Your task to perform on an android device: Open calendar and show me the second week of next month Image 0: 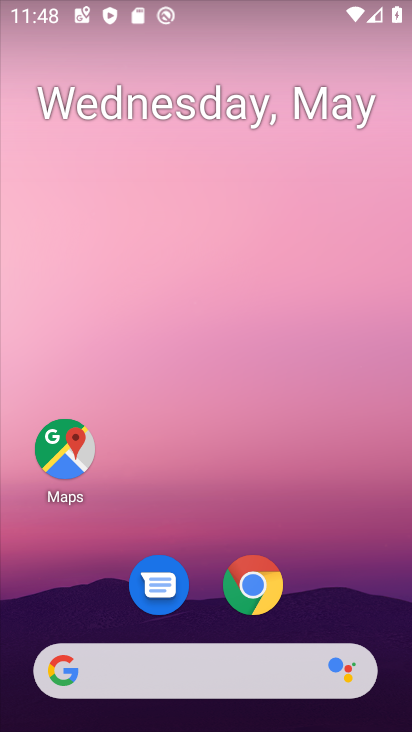
Step 0: drag from (265, 519) to (304, 58)
Your task to perform on an android device: Open calendar and show me the second week of next month Image 1: 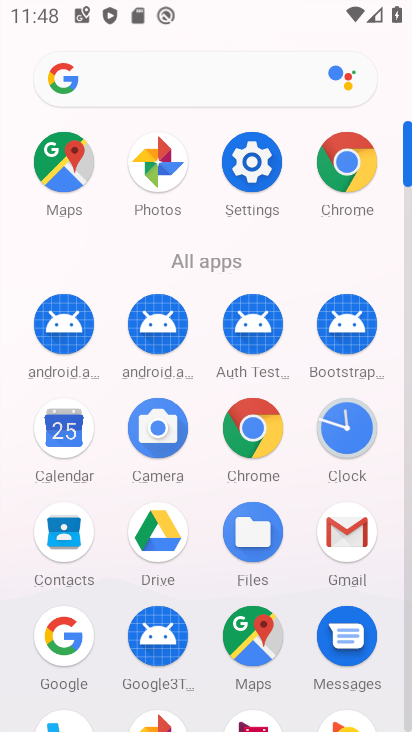
Step 1: click (64, 430)
Your task to perform on an android device: Open calendar and show me the second week of next month Image 2: 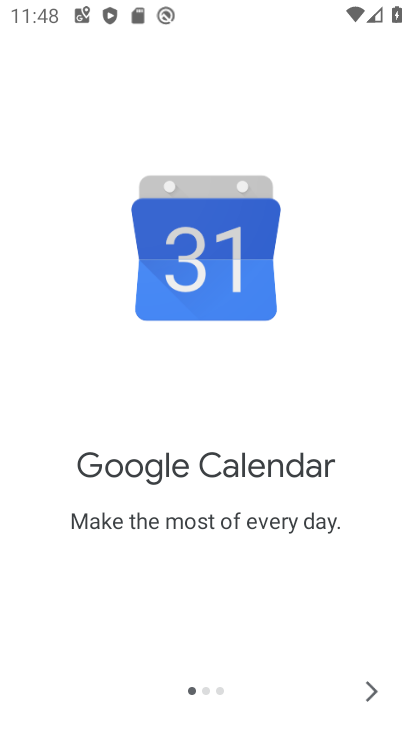
Step 2: click (375, 686)
Your task to perform on an android device: Open calendar and show me the second week of next month Image 3: 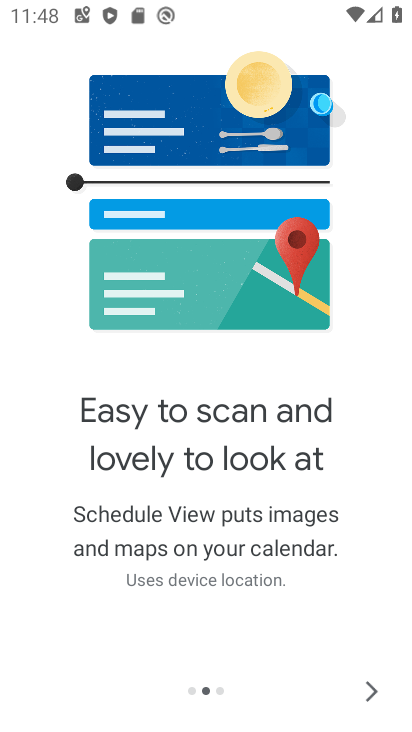
Step 3: click (375, 686)
Your task to perform on an android device: Open calendar and show me the second week of next month Image 4: 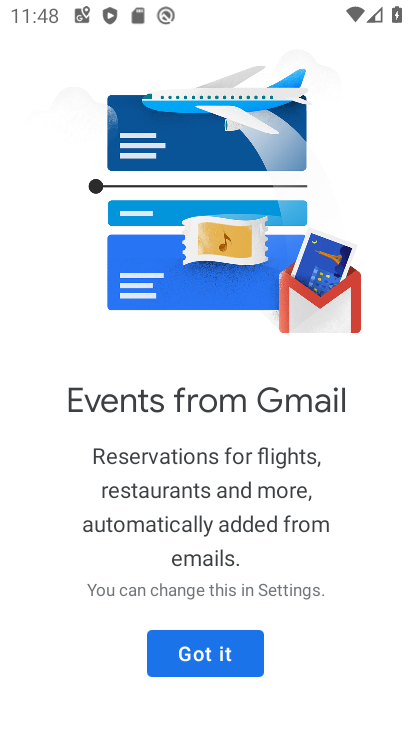
Step 4: click (250, 658)
Your task to perform on an android device: Open calendar and show me the second week of next month Image 5: 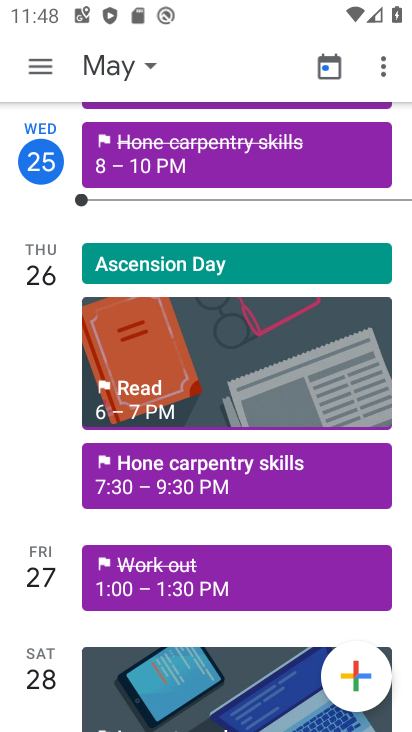
Step 5: click (39, 67)
Your task to perform on an android device: Open calendar and show me the second week of next month Image 6: 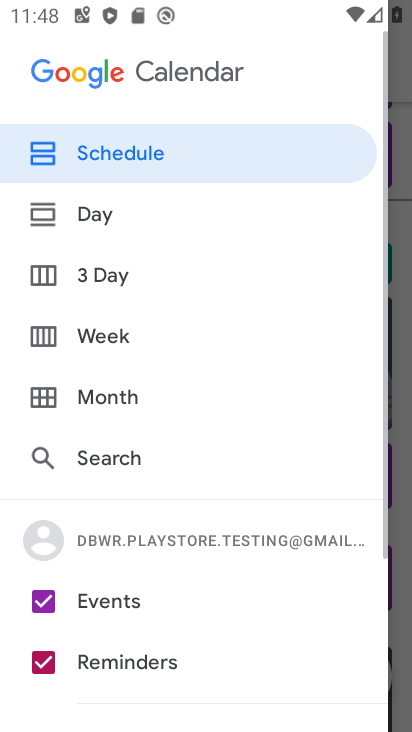
Step 6: click (117, 393)
Your task to perform on an android device: Open calendar and show me the second week of next month Image 7: 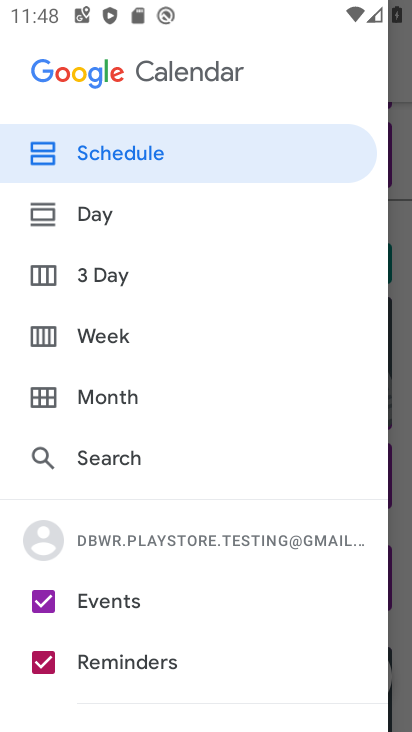
Step 7: click (46, 401)
Your task to perform on an android device: Open calendar and show me the second week of next month Image 8: 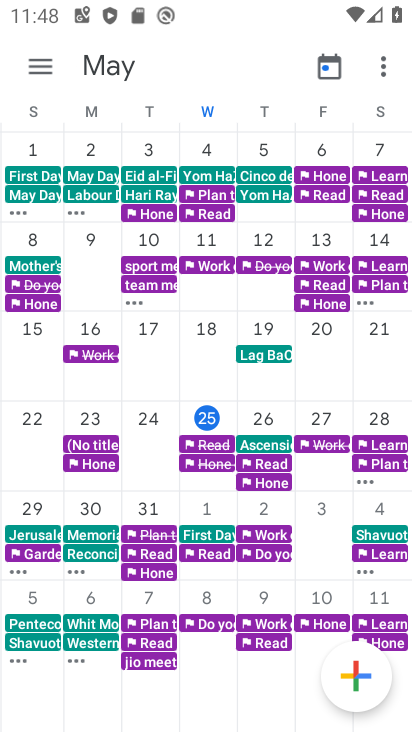
Step 8: drag from (371, 357) to (0, 430)
Your task to perform on an android device: Open calendar and show me the second week of next month Image 9: 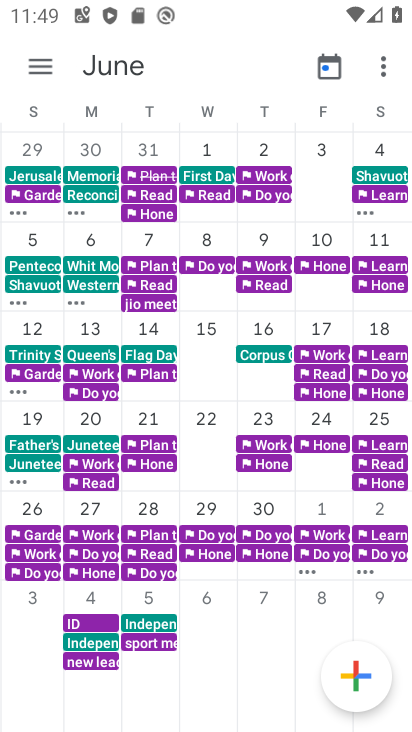
Step 9: click (32, 329)
Your task to perform on an android device: Open calendar and show me the second week of next month Image 10: 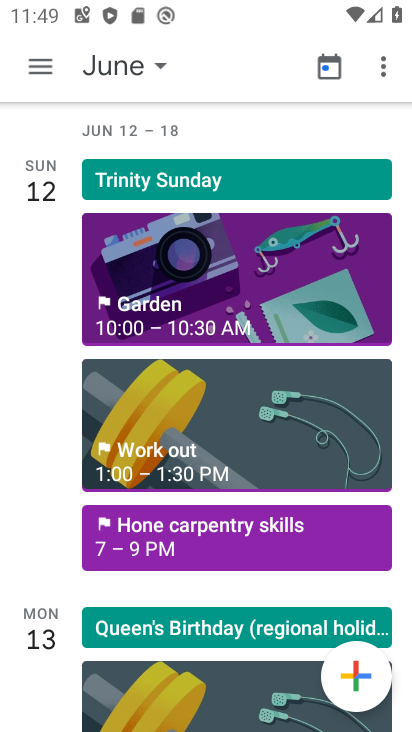
Step 10: click (36, 62)
Your task to perform on an android device: Open calendar and show me the second week of next month Image 11: 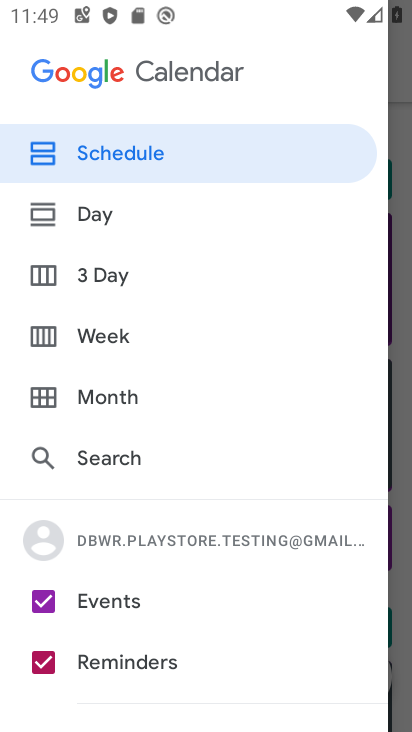
Step 11: click (45, 332)
Your task to perform on an android device: Open calendar and show me the second week of next month Image 12: 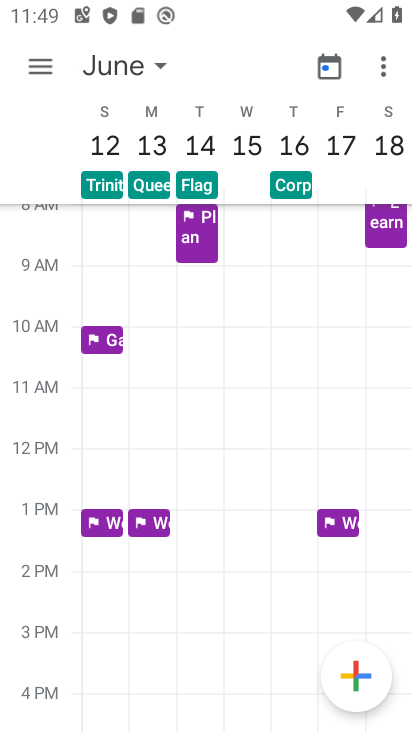
Step 12: task complete